Your task to perform on an android device: create a new album in the google photos Image 0: 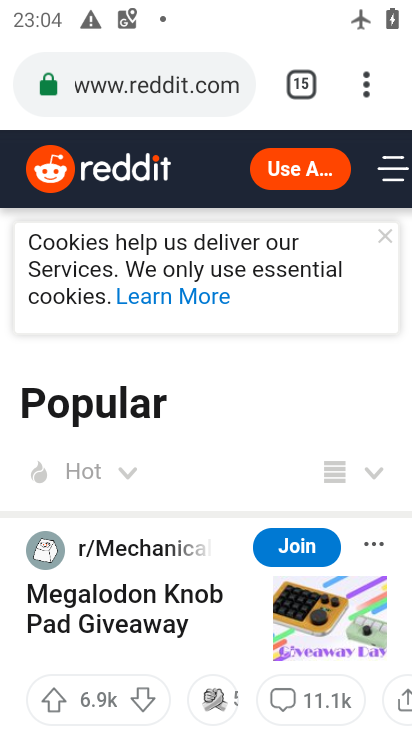
Step 0: press home button
Your task to perform on an android device: create a new album in the google photos Image 1: 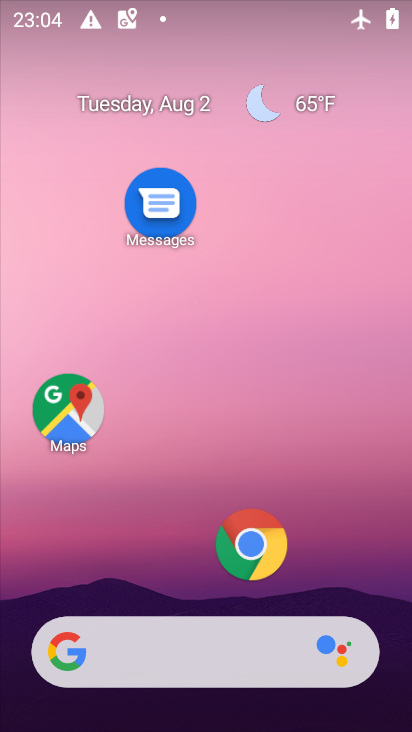
Step 1: drag from (179, 577) to (152, 151)
Your task to perform on an android device: create a new album in the google photos Image 2: 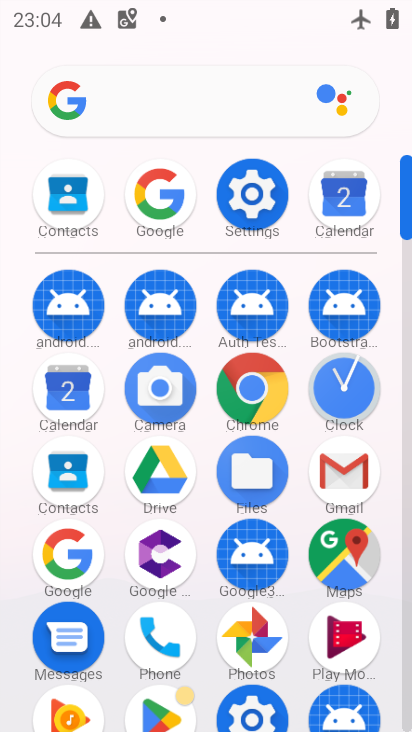
Step 2: click (243, 625)
Your task to perform on an android device: create a new album in the google photos Image 3: 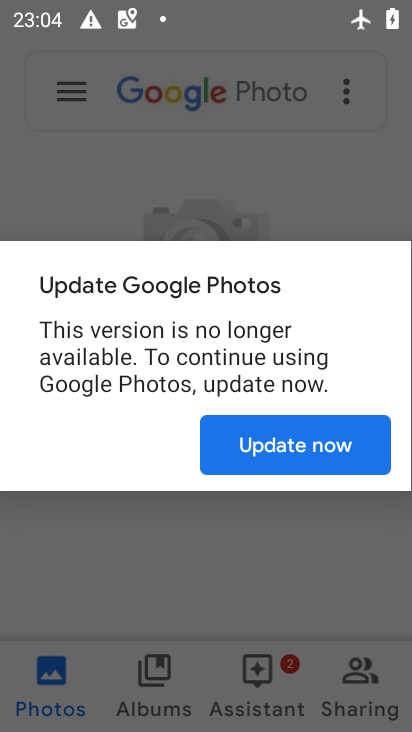
Step 3: click (298, 437)
Your task to perform on an android device: create a new album in the google photos Image 4: 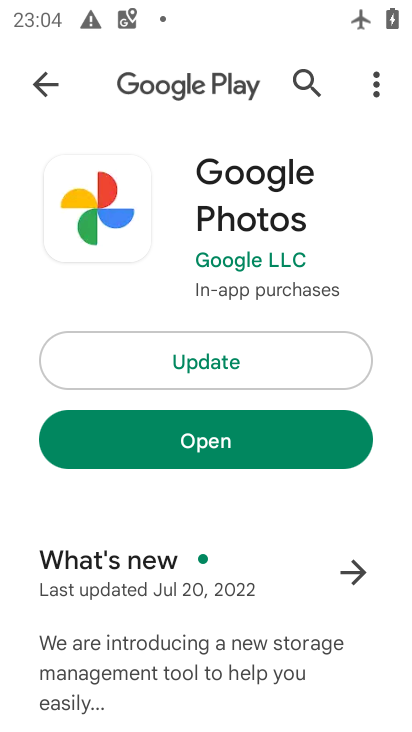
Step 4: click (193, 437)
Your task to perform on an android device: create a new album in the google photos Image 5: 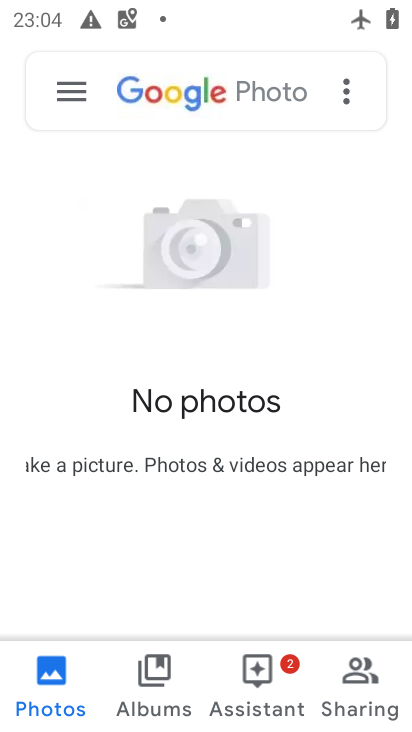
Step 5: click (349, 84)
Your task to perform on an android device: create a new album in the google photos Image 6: 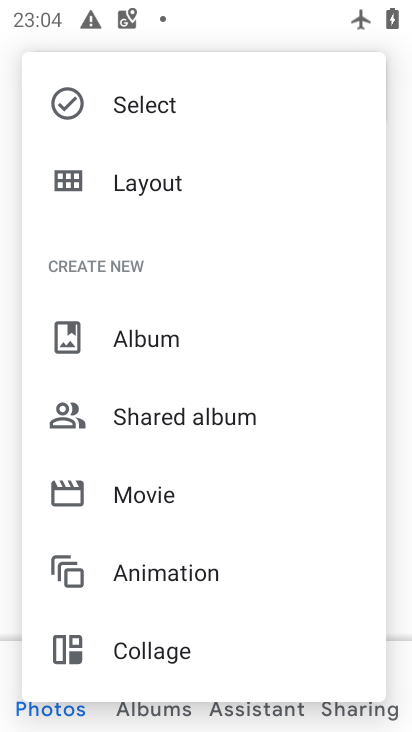
Step 6: click (173, 328)
Your task to perform on an android device: create a new album in the google photos Image 7: 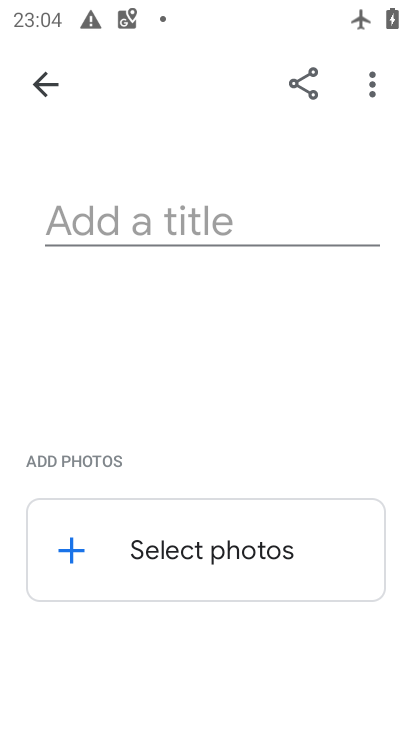
Step 7: click (114, 233)
Your task to perform on an android device: create a new album in the google photos Image 8: 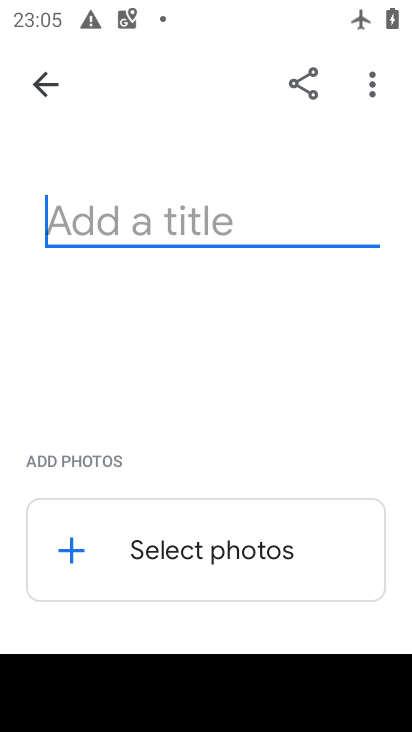
Step 8: type "drdrgdr"
Your task to perform on an android device: create a new album in the google photos Image 9: 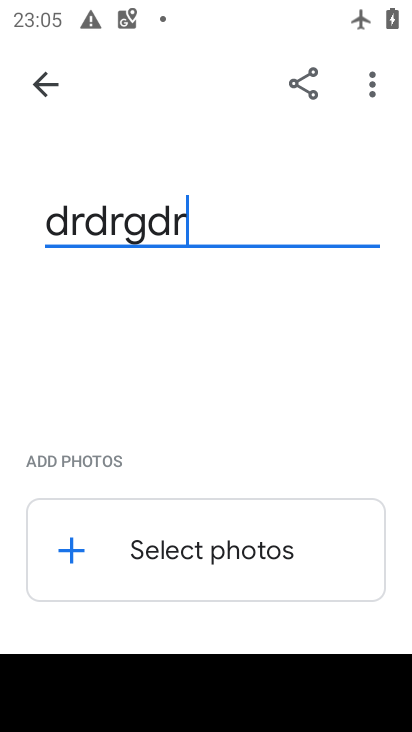
Step 9: type ""
Your task to perform on an android device: create a new album in the google photos Image 10: 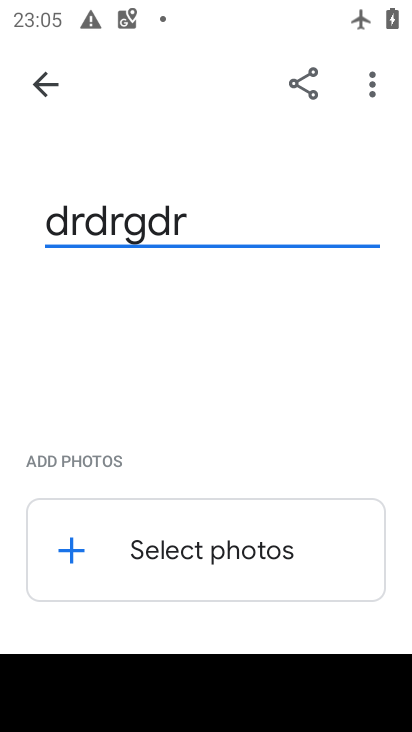
Step 10: click (75, 548)
Your task to perform on an android device: create a new album in the google photos Image 11: 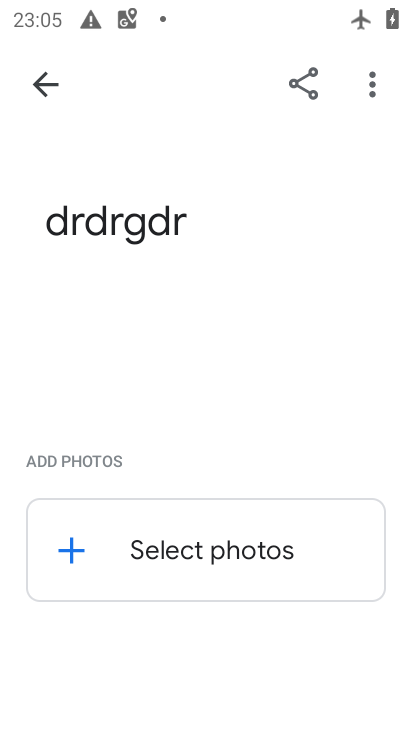
Step 11: click (194, 557)
Your task to perform on an android device: create a new album in the google photos Image 12: 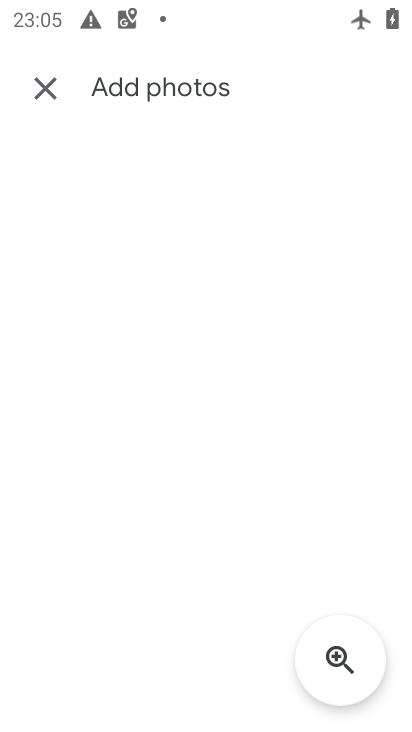
Step 12: task complete